Your task to perform on an android device: set default search engine in the chrome app Image 0: 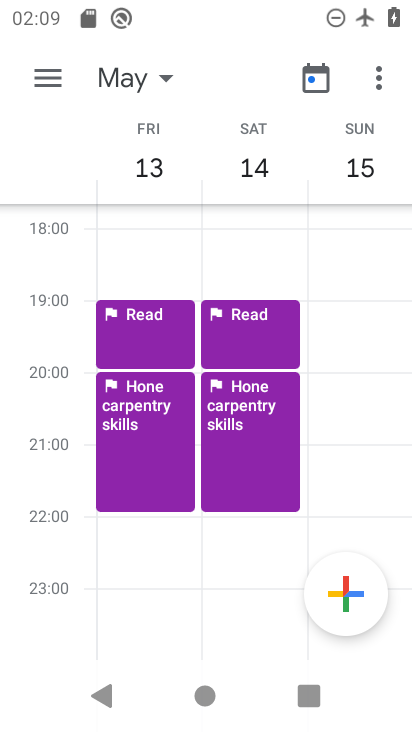
Step 0: press home button
Your task to perform on an android device: set default search engine in the chrome app Image 1: 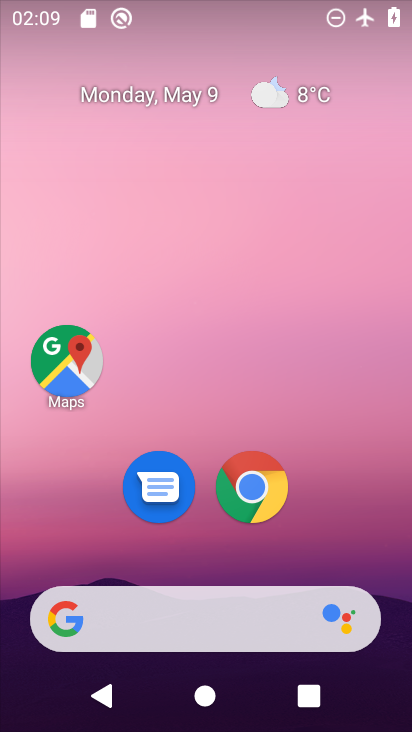
Step 1: click (251, 466)
Your task to perform on an android device: set default search engine in the chrome app Image 2: 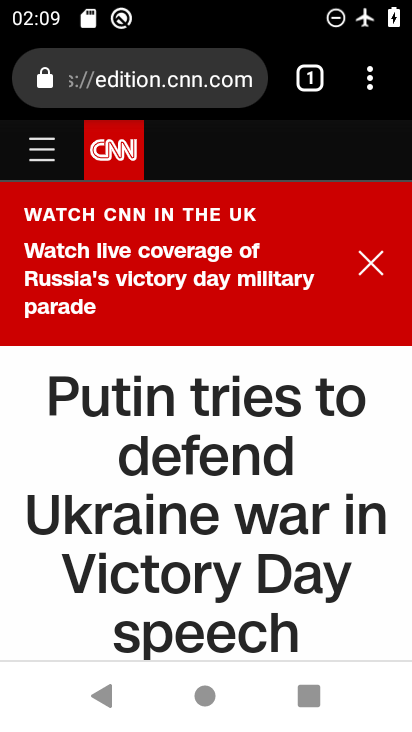
Step 2: click (382, 81)
Your task to perform on an android device: set default search engine in the chrome app Image 3: 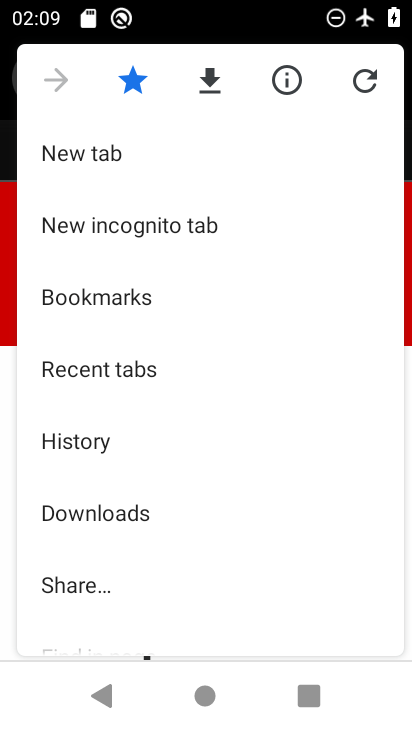
Step 3: drag from (182, 582) to (168, 287)
Your task to perform on an android device: set default search engine in the chrome app Image 4: 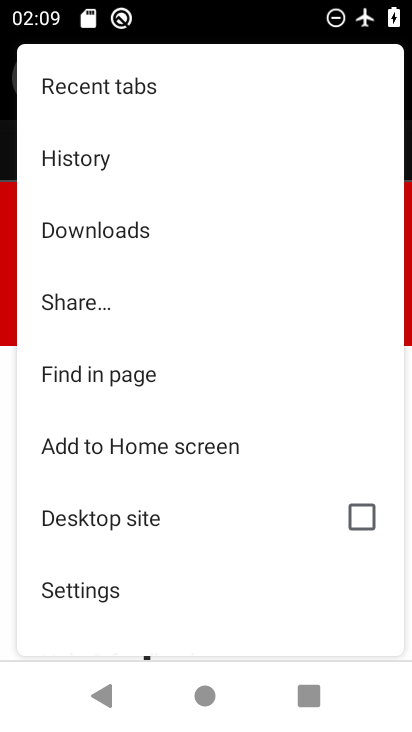
Step 4: click (121, 587)
Your task to perform on an android device: set default search engine in the chrome app Image 5: 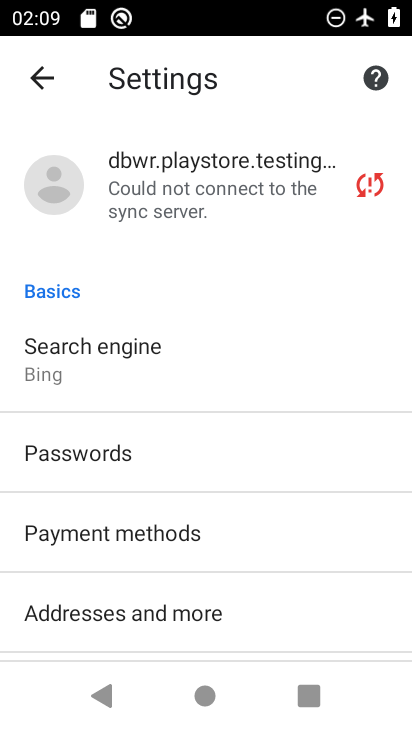
Step 5: drag from (206, 468) to (331, 205)
Your task to perform on an android device: set default search engine in the chrome app Image 6: 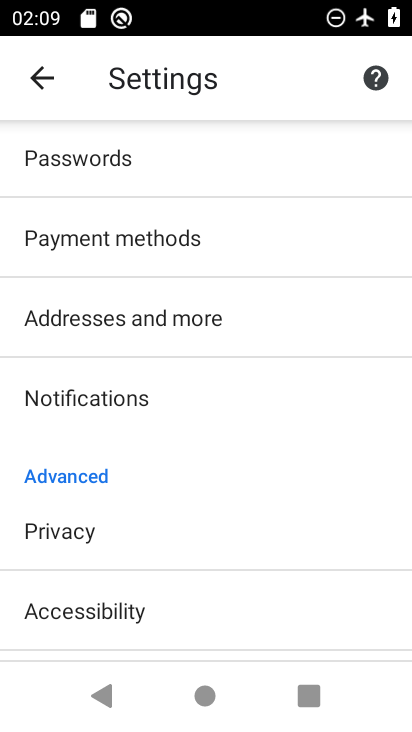
Step 6: drag from (267, 536) to (266, 248)
Your task to perform on an android device: set default search engine in the chrome app Image 7: 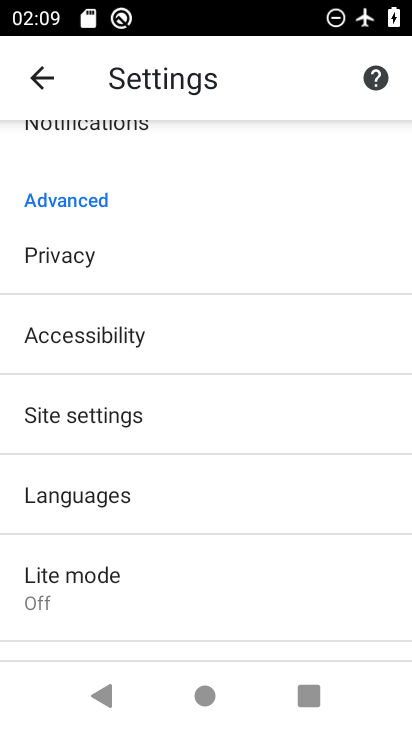
Step 7: drag from (165, 185) to (172, 620)
Your task to perform on an android device: set default search engine in the chrome app Image 8: 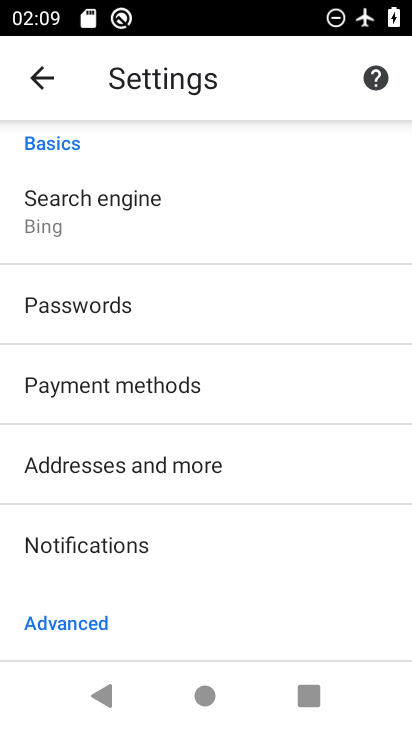
Step 8: click (124, 202)
Your task to perform on an android device: set default search engine in the chrome app Image 9: 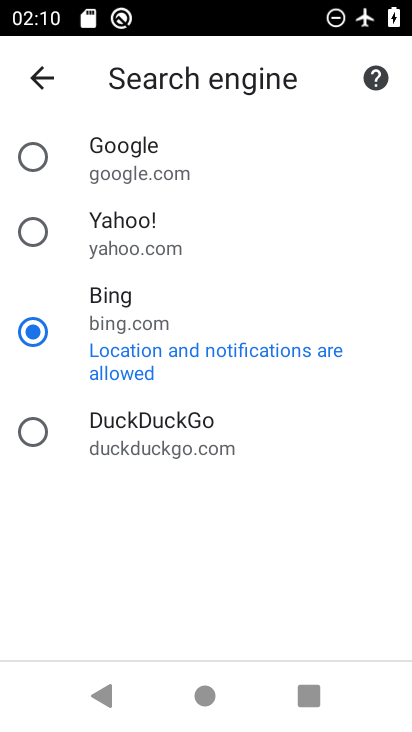
Step 9: click (129, 427)
Your task to perform on an android device: set default search engine in the chrome app Image 10: 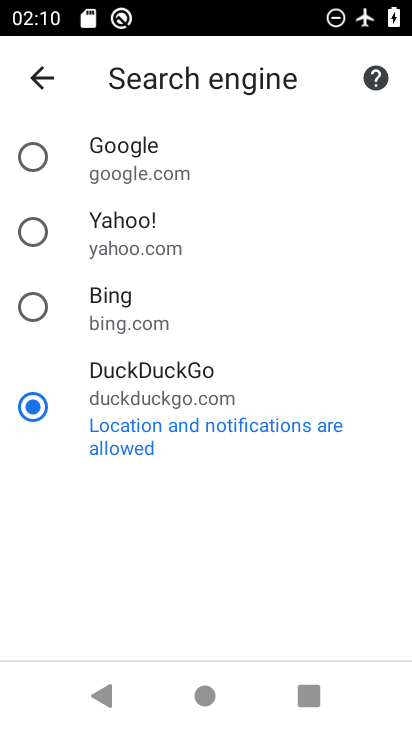
Step 10: task complete